Your task to perform on an android device: Check the weather Image 0: 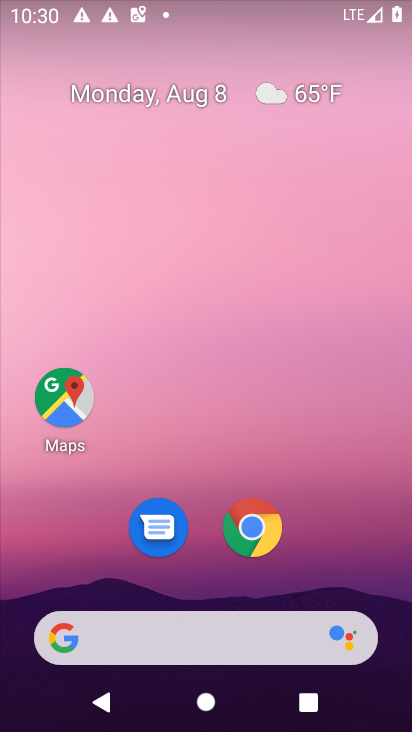
Step 0: drag from (2, 191) to (412, 165)
Your task to perform on an android device: Check the weather Image 1: 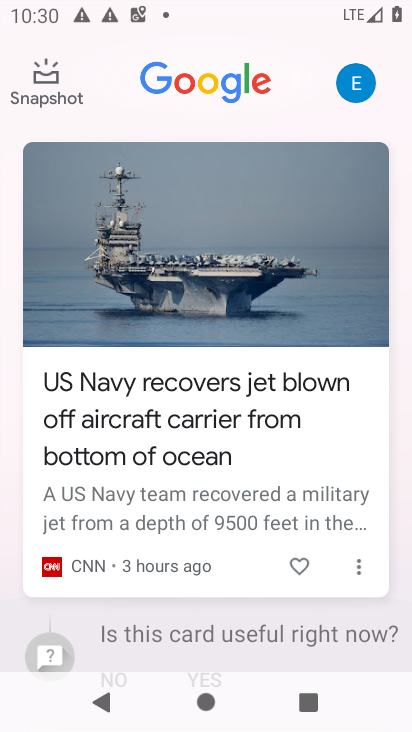
Step 1: task complete